Your task to perform on an android device: Show me productivity apps on the Play Store Image 0: 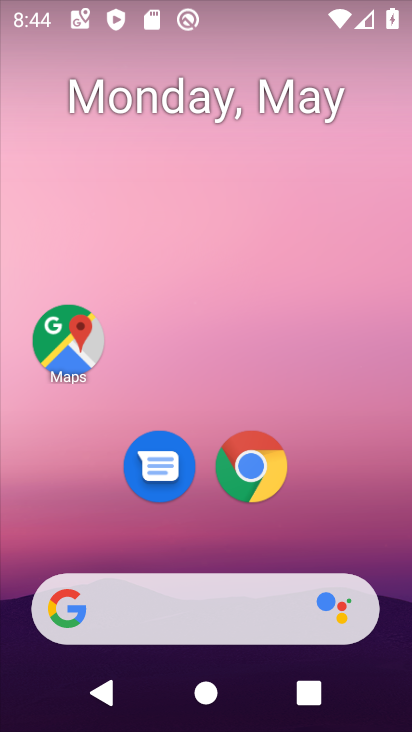
Step 0: drag from (275, 647) to (324, 133)
Your task to perform on an android device: Show me productivity apps on the Play Store Image 1: 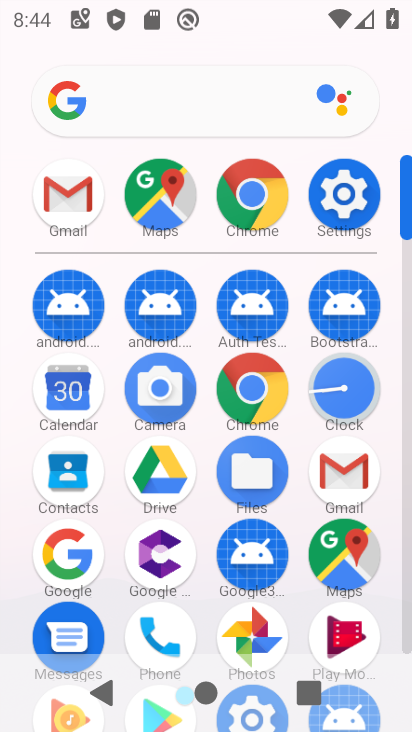
Step 1: drag from (202, 601) to (189, 371)
Your task to perform on an android device: Show me productivity apps on the Play Store Image 2: 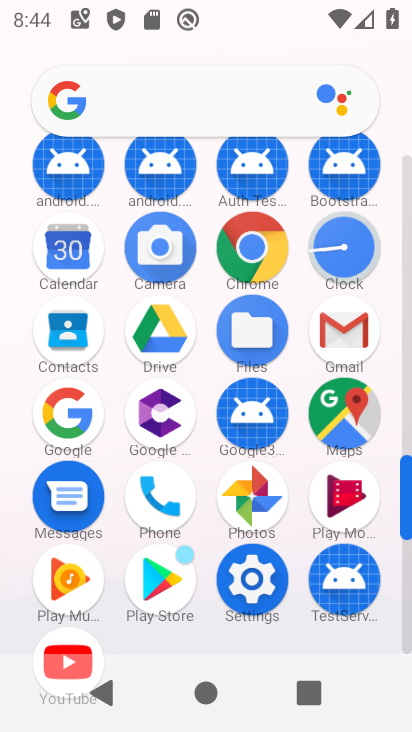
Step 2: click (161, 567)
Your task to perform on an android device: Show me productivity apps on the Play Store Image 3: 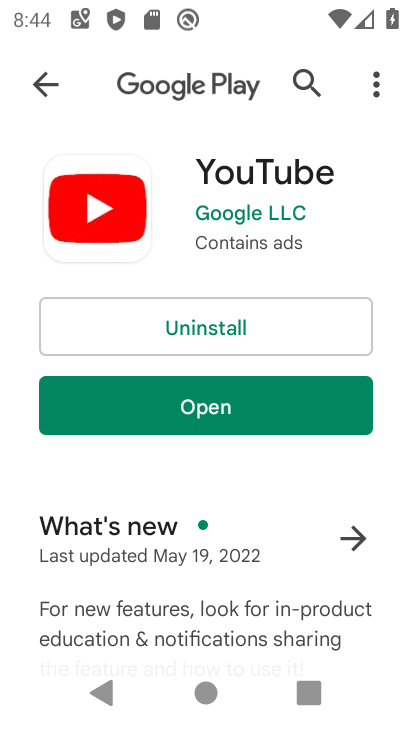
Step 3: click (299, 84)
Your task to perform on an android device: Show me productivity apps on the Play Store Image 4: 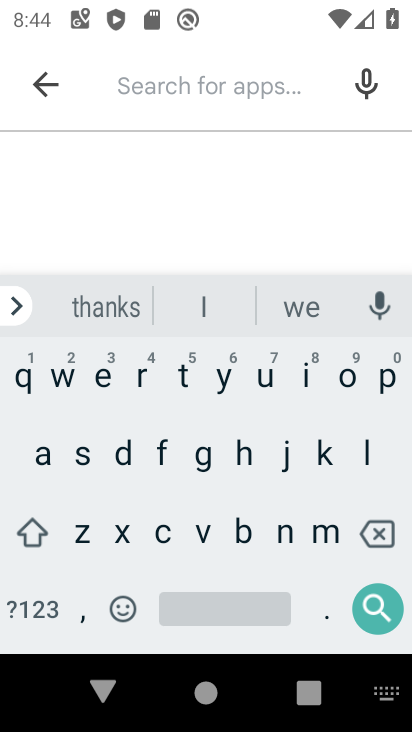
Step 4: click (379, 385)
Your task to perform on an android device: Show me productivity apps on the Play Store Image 5: 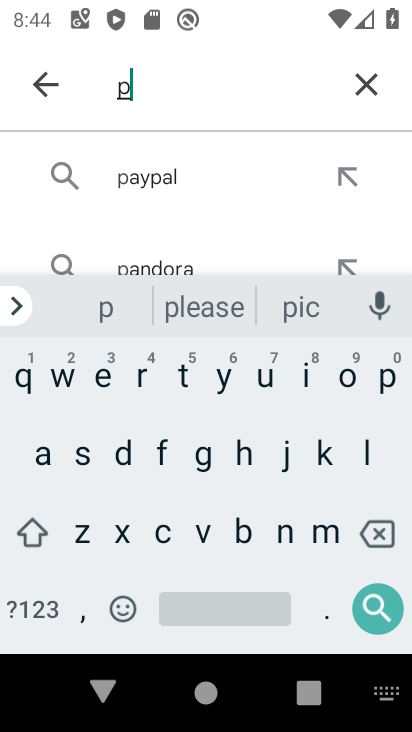
Step 5: click (139, 379)
Your task to perform on an android device: Show me productivity apps on the Play Store Image 6: 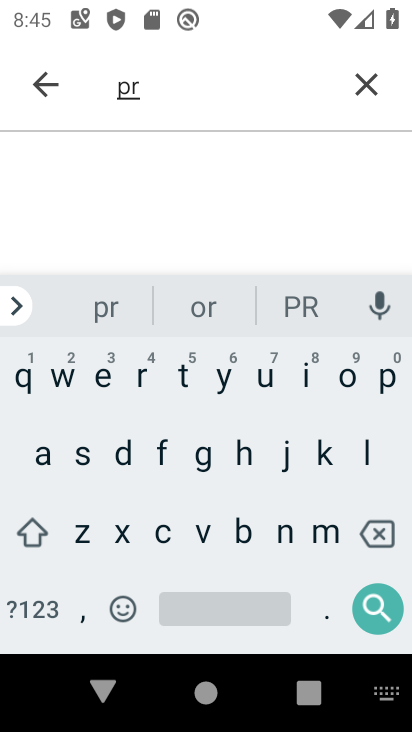
Step 6: click (355, 376)
Your task to perform on an android device: Show me productivity apps on the Play Store Image 7: 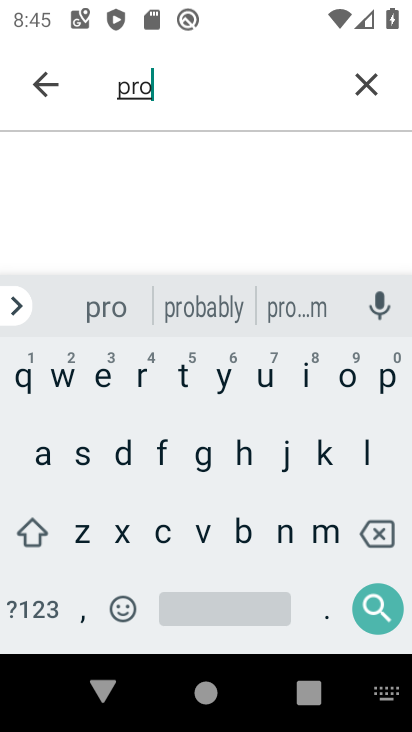
Step 7: click (115, 462)
Your task to perform on an android device: Show me productivity apps on the Play Store Image 8: 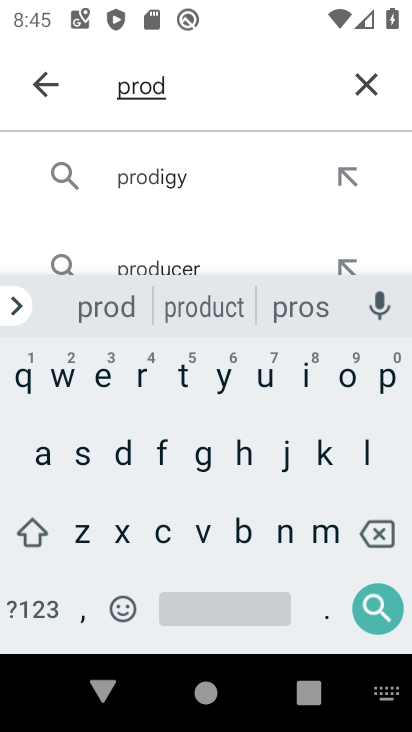
Step 8: click (261, 379)
Your task to perform on an android device: Show me productivity apps on the Play Store Image 9: 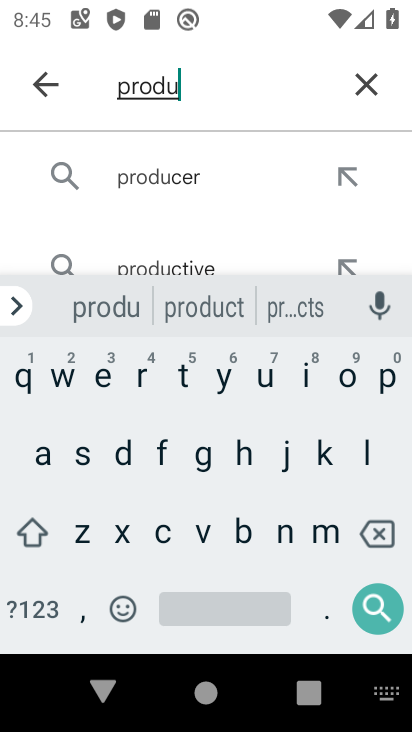
Step 9: click (160, 530)
Your task to perform on an android device: Show me productivity apps on the Play Store Image 10: 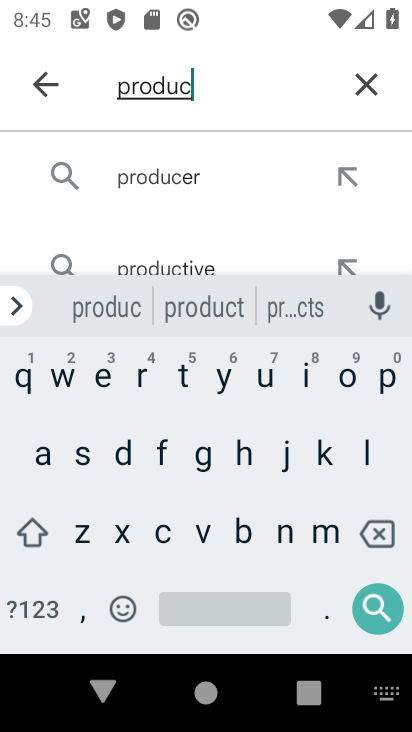
Step 10: click (189, 382)
Your task to perform on an android device: Show me productivity apps on the Play Store Image 11: 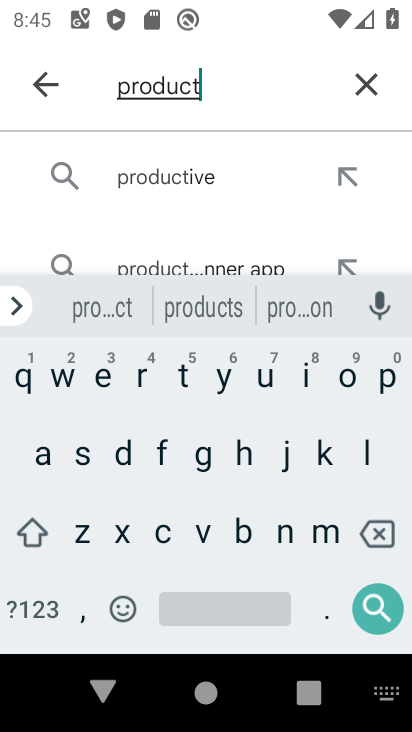
Step 11: click (310, 373)
Your task to perform on an android device: Show me productivity apps on the Play Store Image 12: 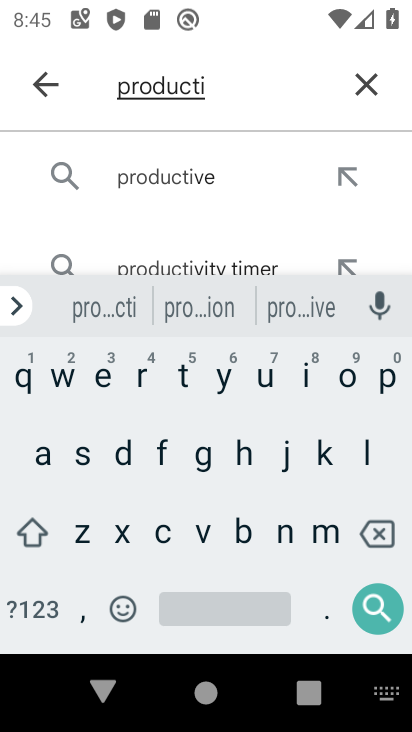
Step 12: click (200, 523)
Your task to perform on an android device: Show me productivity apps on the Play Store Image 13: 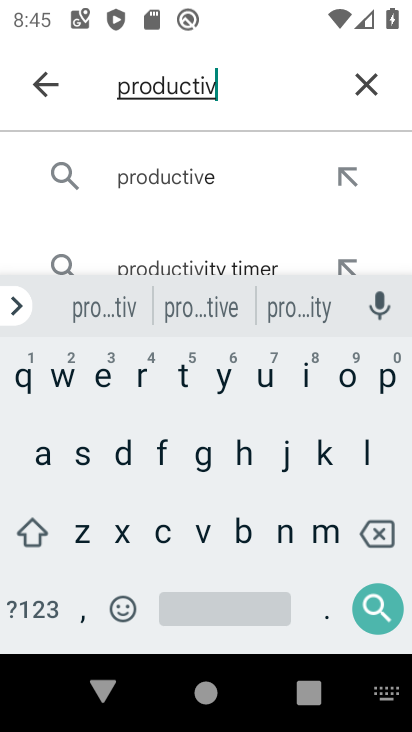
Step 13: click (282, 306)
Your task to perform on an android device: Show me productivity apps on the Play Store Image 14: 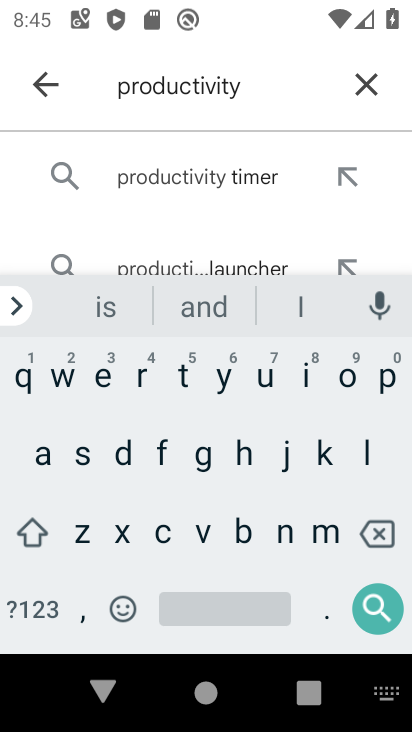
Step 14: click (35, 454)
Your task to perform on an android device: Show me productivity apps on the Play Store Image 15: 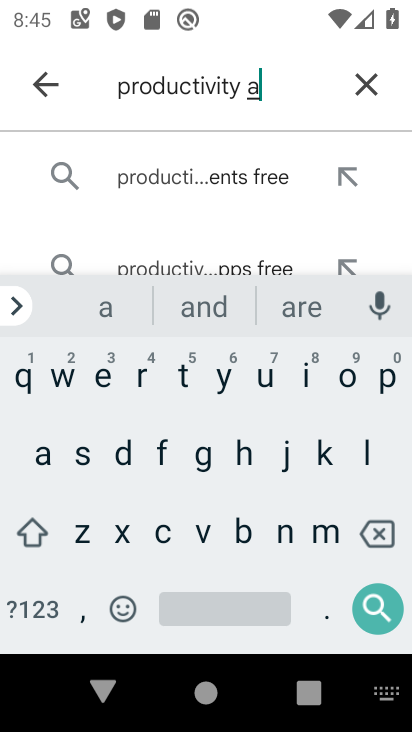
Step 15: click (388, 386)
Your task to perform on an android device: Show me productivity apps on the Play Store Image 16: 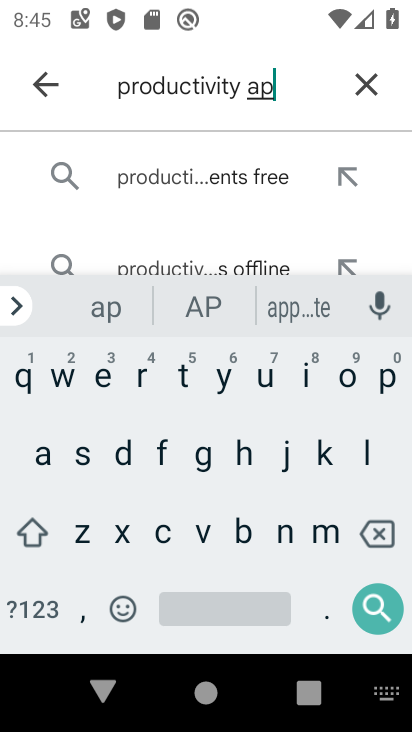
Step 16: click (388, 386)
Your task to perform on an android device: Show me productivity apps on the Play Store Image 17: 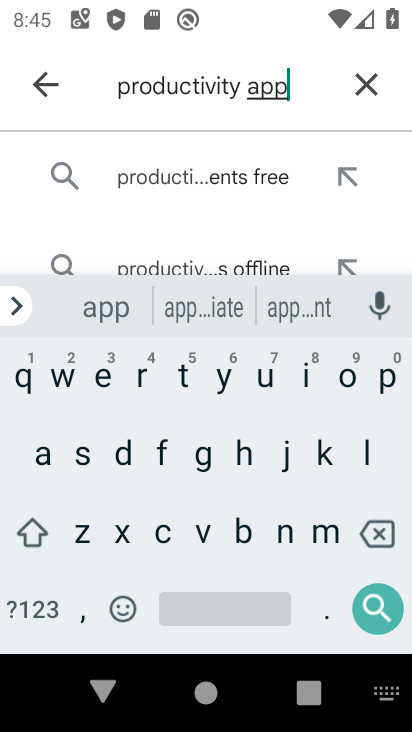
Step 17: click (84, 459)
Your task to perform on an android device: Show me productivity apps on the Play Store Image 18: 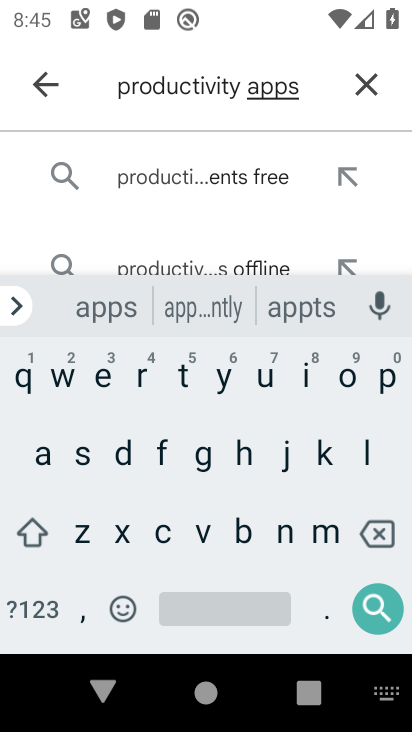
Step 18: click (374, 606)
Your task to perform on an android device: Show me productivity apps on the Play Store Image 19: 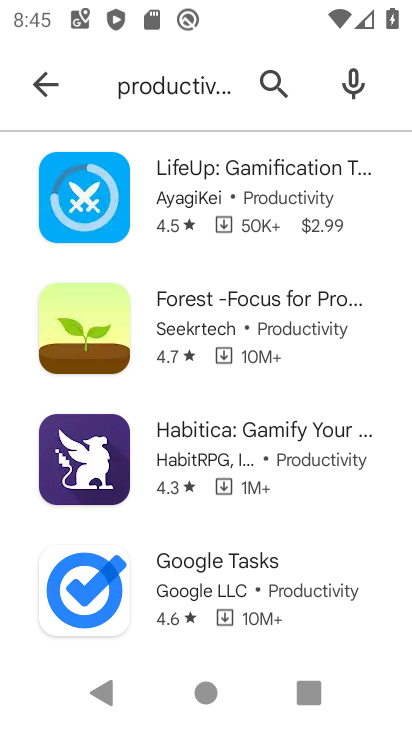
Step 19: task complete